Your task to perform on an android device: install app "Spotify: Music and Podcasts" Image 0: 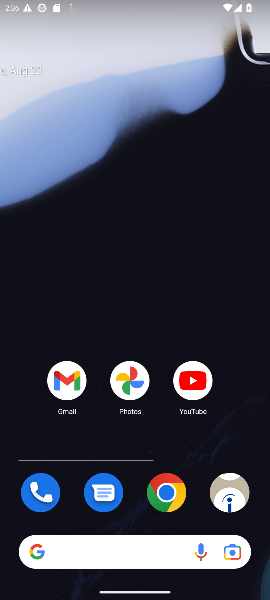
Step 0: click (223, 502)
Your task to perform on an android device: install app "Spotify: Music and Podcasts" Image 1: 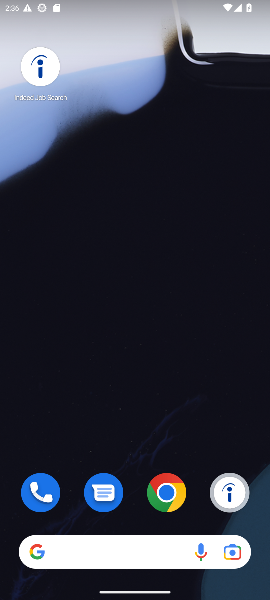
Step 1: drag from (193, 515) to (138, 135)
Your task to perform on an android device: install app "Spotify: Music and Podcasts" Image 2: 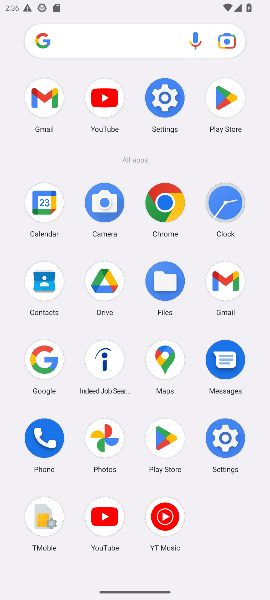
Step 2: click (221, 107)
Your task to perform on an android device: install app "Spotify: Music and Podcasts" Image 3: 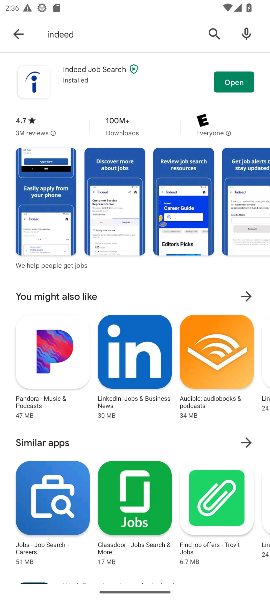
Step 3: click (221, 39)
Your task to perform on an android device: install app "Spotify: Music and Podcasts" Image 4: 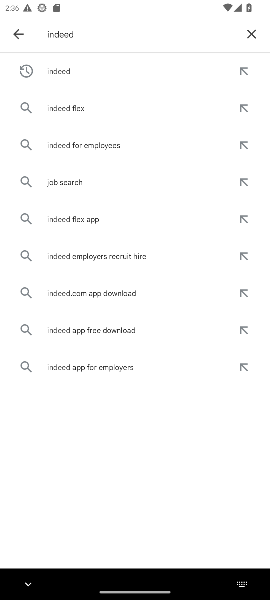
Step 4: click (248, 35)
Your task to perform on an android device: install app "Spotify: Music and Podcasts" Image 5: 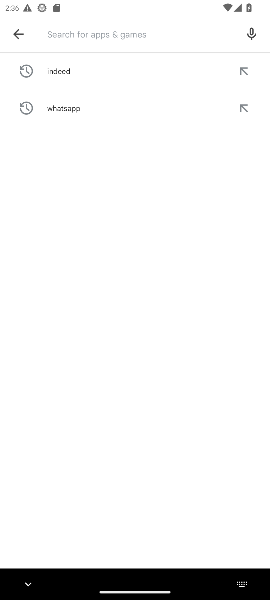
Step 5: type "spotify"
Your task to perform on an android device: install app "Spotify: Music and Podcasts" Image 6: 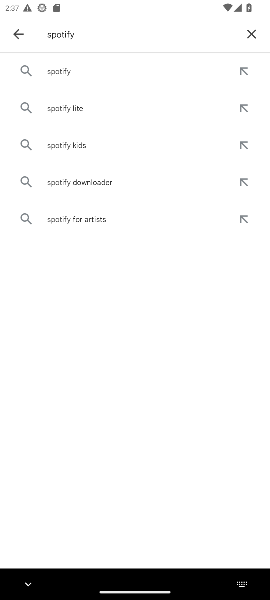
Step 6: click (114, 72)
Your task to perform on an android device: install app "Spotify: Music and Podcasts" Image 7: 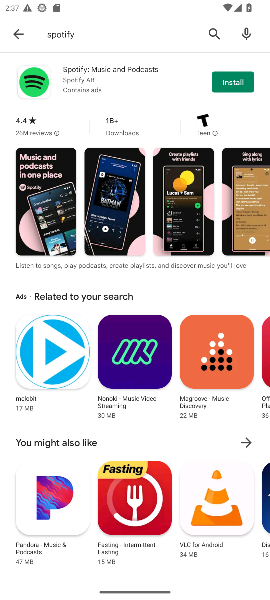
Step 7: click (209, 88)
Your task to perform on an android device: install app "Spotify: Music and Podcasts" Image 8: 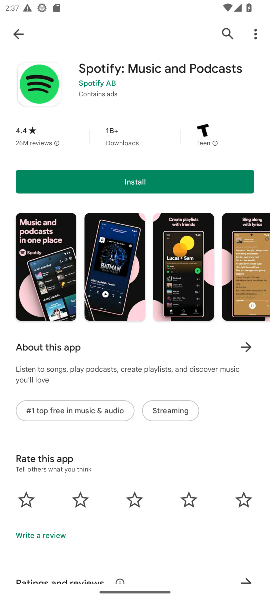
Step 8: click (169, 171)
Your task to perform on an android device: install app "Spotify: Music and Podcasts" Image 9: 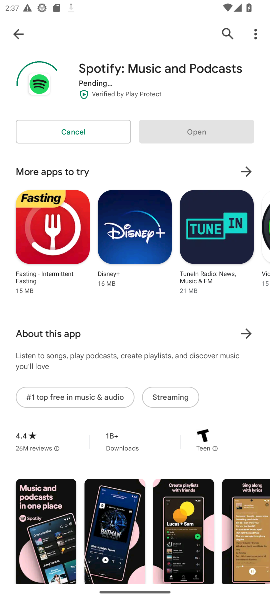
Step 9: task complete